Your task to perform on an android device: change the clock display to show seconds Image 0: 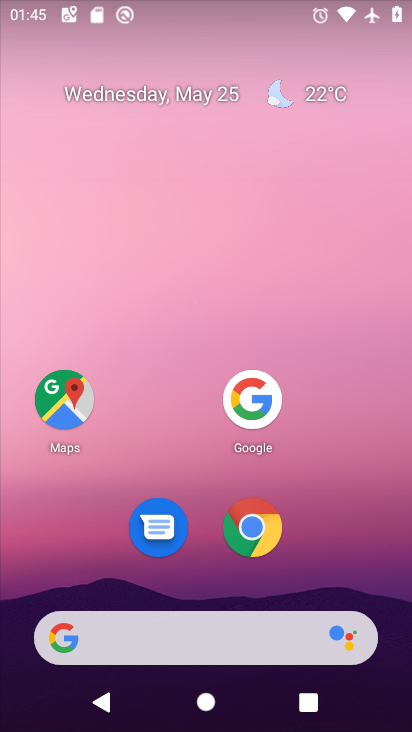
Step 0: press home button
Your task to perform on an android device: change the clock display to show seconds Image 1: 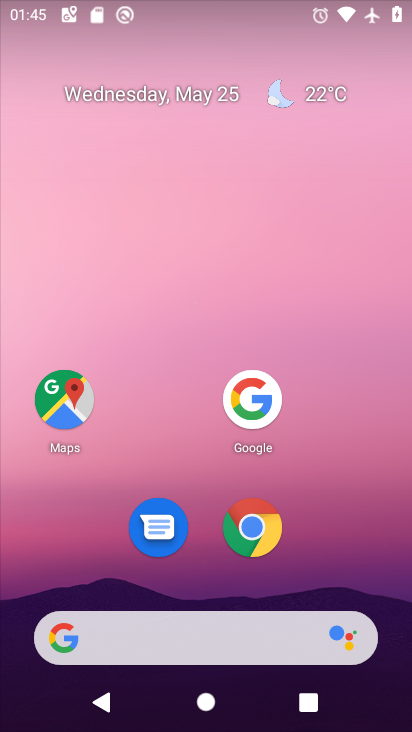
Step 1: drag from (190, 640) to (329, 104)
Your task to perform on an android device: change the clock display to show seconds Image 2: 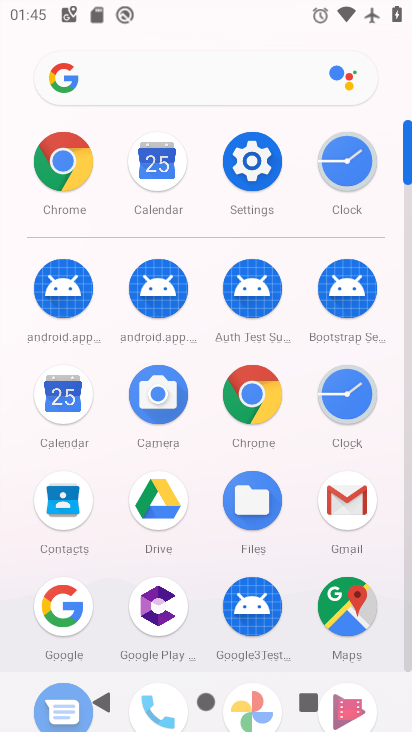
Step 2: click (340, 392)
Your task to perform on an android device: change the clock display to show seconds Image 3: 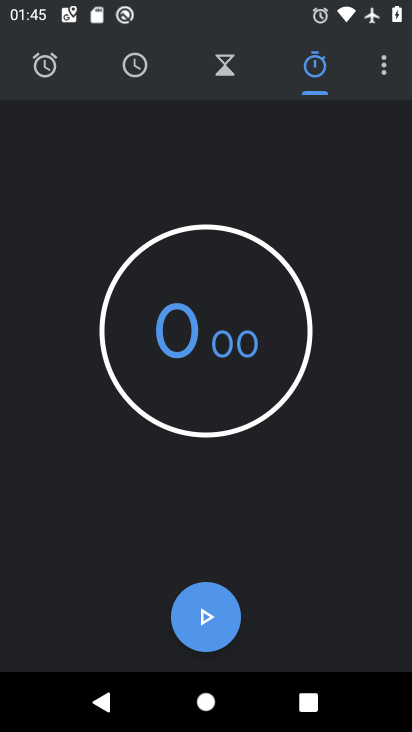
Step 3: click (379, 67)
Your task to perform on an android device: change the clock display to show seconds Image 4: 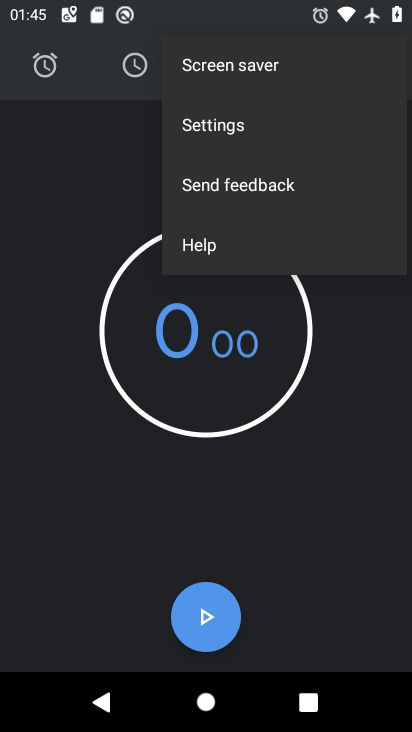
Step 4: click (239, 127)
Your task to perform on an android device: change the clock display to show seconds Image 5: 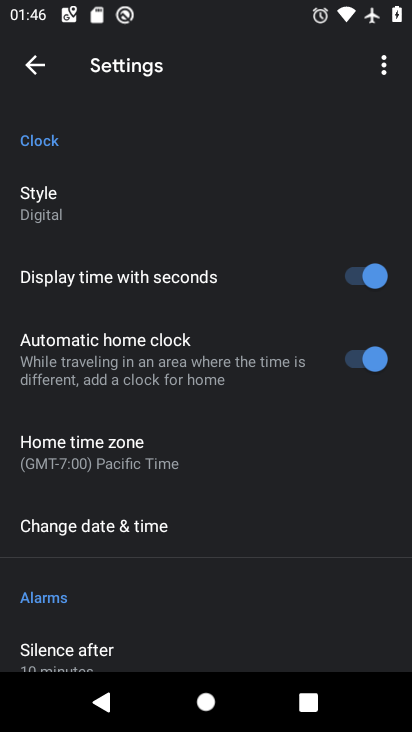
Step 5: task complete